Your task to perform on an android device: Open Android settings Image 0: 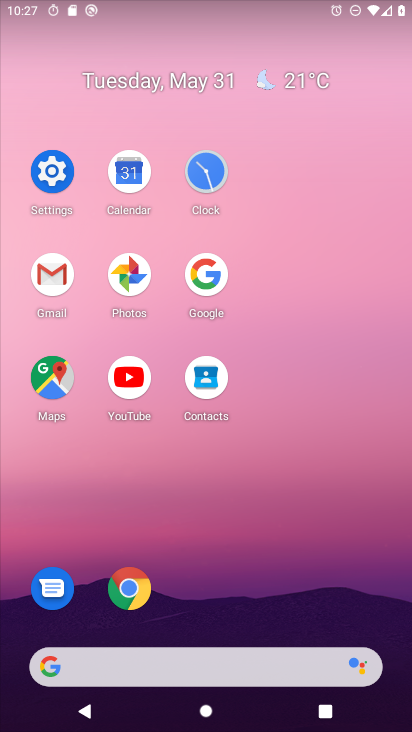
Step 0: click (44, 168)
Your task to perform on an android device: Open Android settings Image 1: 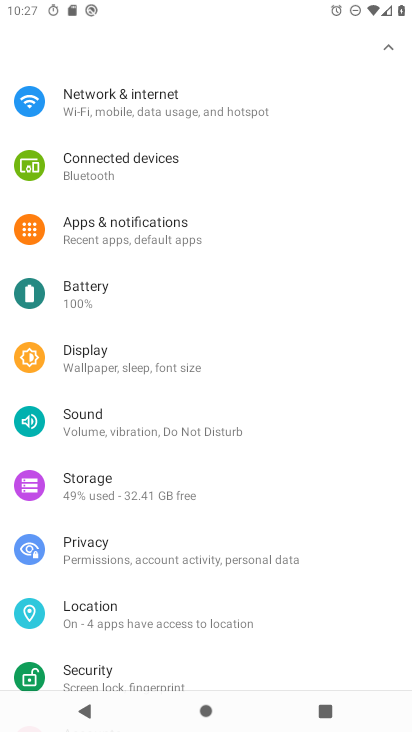
Step 1: task complete